Your task to perform on an android device: open a bookmark in the chrome app Image 0: 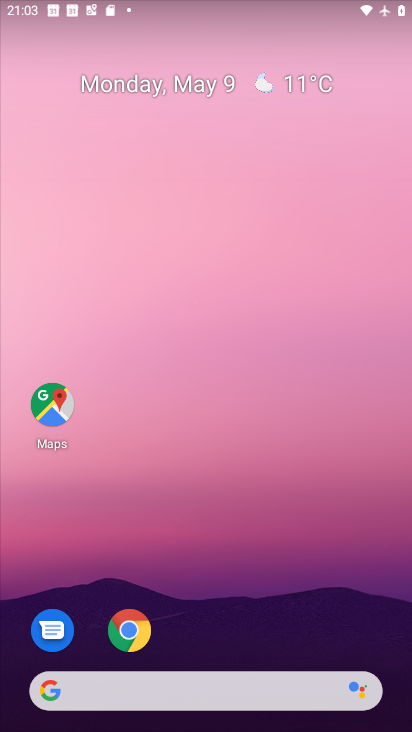
Step 0: click (112, 638)
Your task to perform on an android device: open a bookmark in the chrome app Image 1: 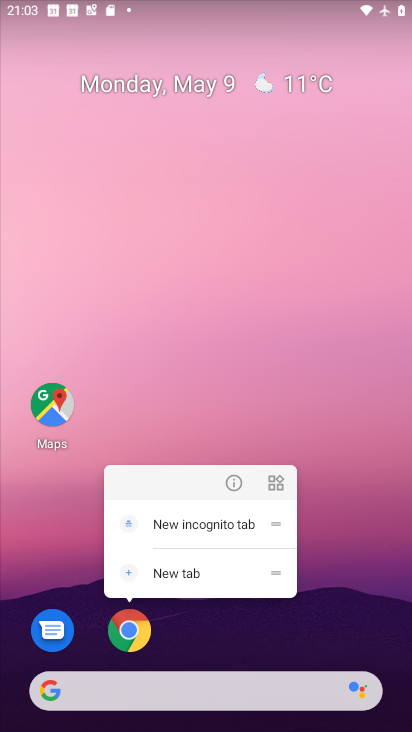
Step 1: click (148, 640)
Your task to perform on an android device: open a bookmark in the chrome app Image 2: 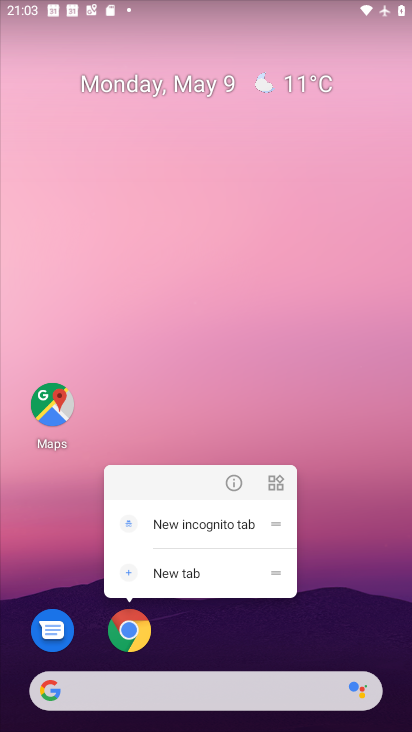
Step 2: click (139, 633)
Your task to perform on an android device: open a bookmark in the chrome app Image 3: 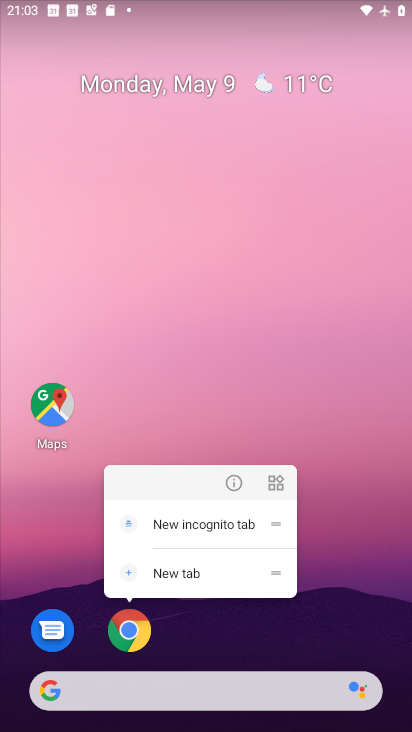
Step 3: click (139, 633)
Your task to perform on an android device: open a bookmark in the chrome app Image 4: 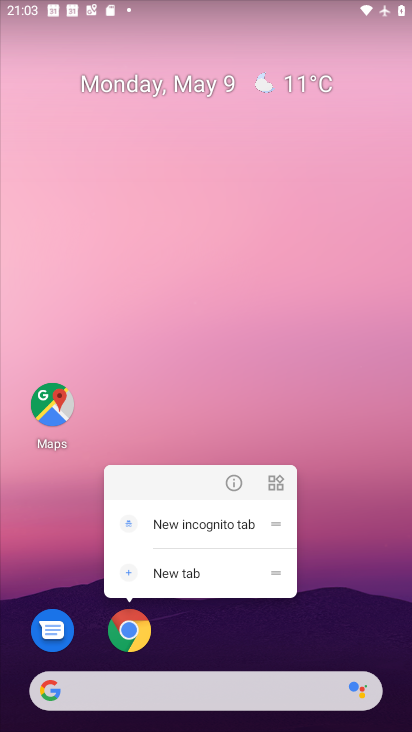
Step 4: click (126, 627)
Your task to perform on an android device: open a bookmark in the chrome app Image 5: 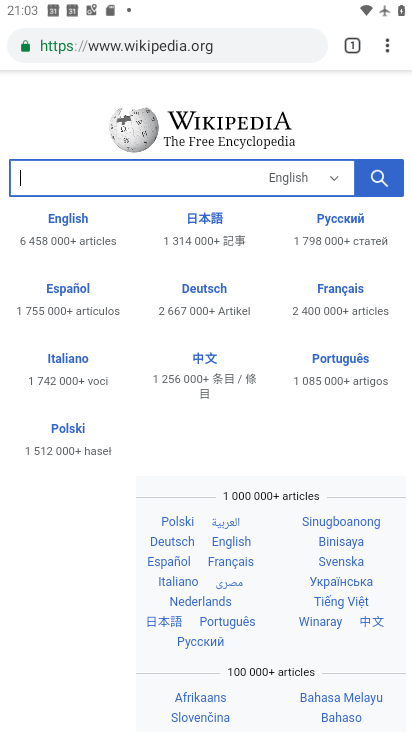
Step 5: drag from (390, 45) to (313, 164)
Your task to perform on an android device: open a bookmark in the chrome app Image 6: 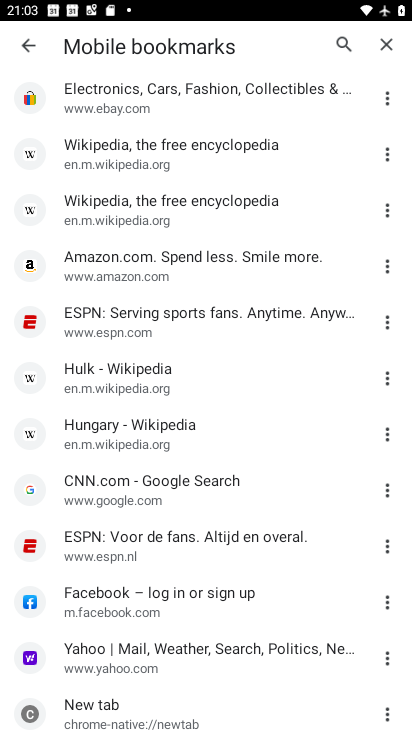
Step 6: click (123, 392)
Your task to perform on an android device: open a bookmark in the chrome app Image 7: 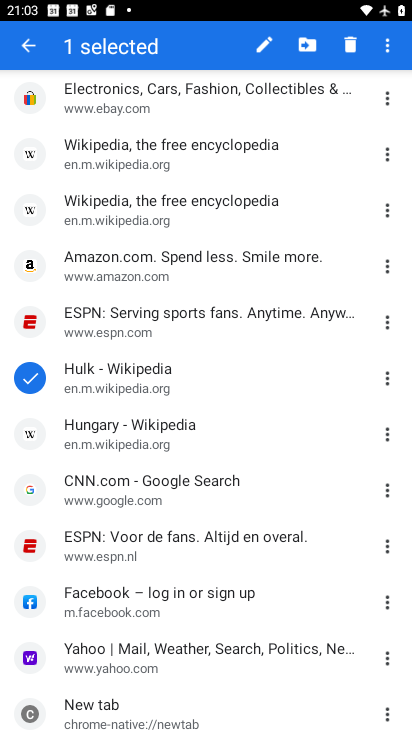
Step 7: click (123, 392)
Your task to perform on an android device: open a bookmark in the chrome app Image 8: 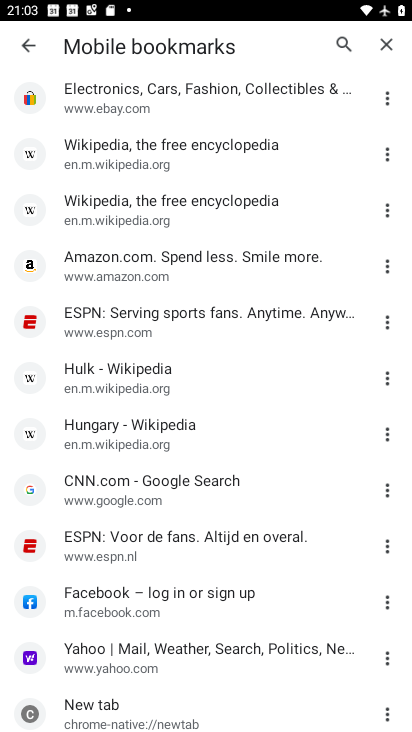
Step 8: click (109, 377)
Your task to perform on an android device: open a bookmark in the chrome app Image 9: 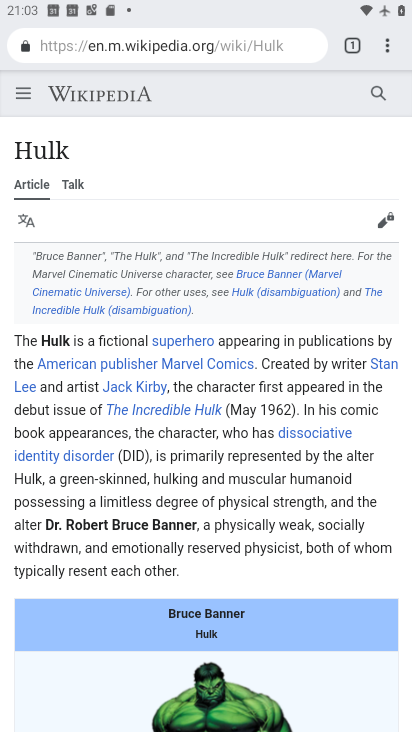
Step 9: task complete